Your task to perform on an android device: toggle pop-ups in chrome Image 0: 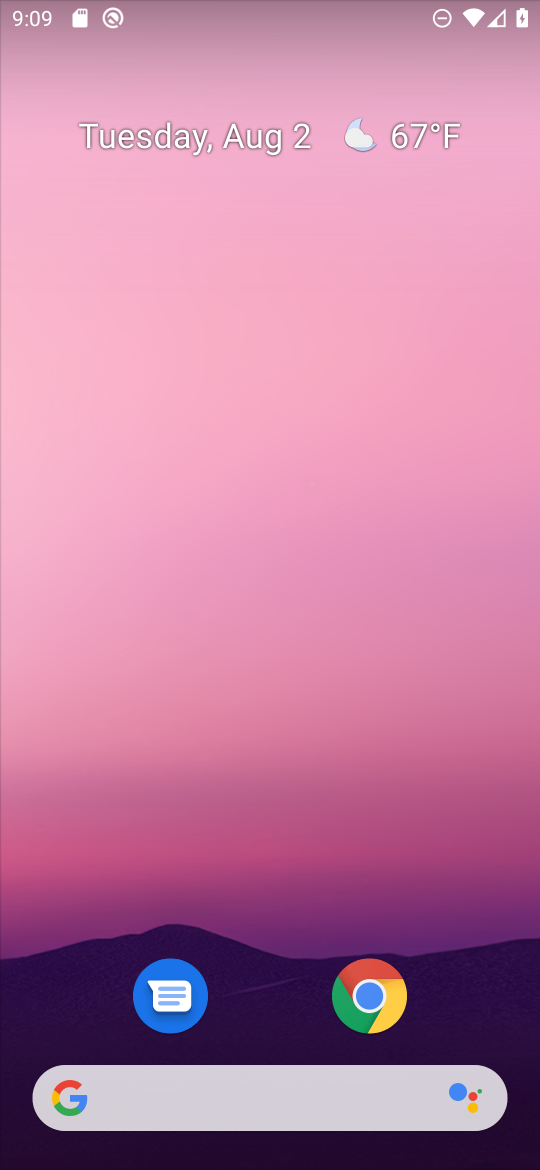
Step 0: drag from (298, 1002) to (272, 146)
Your task to perform on an android device: toggle pop-ups in chrome Image 1: 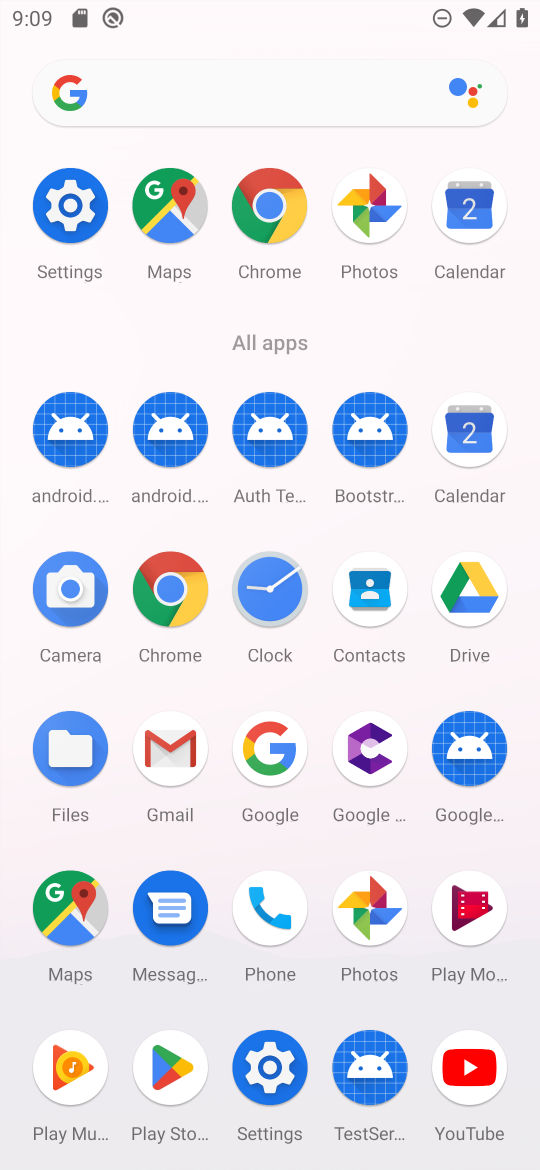
Step 1: click (174, 577)
Your task to perform on an android device: toggle pop-ups in chrome Image 2: 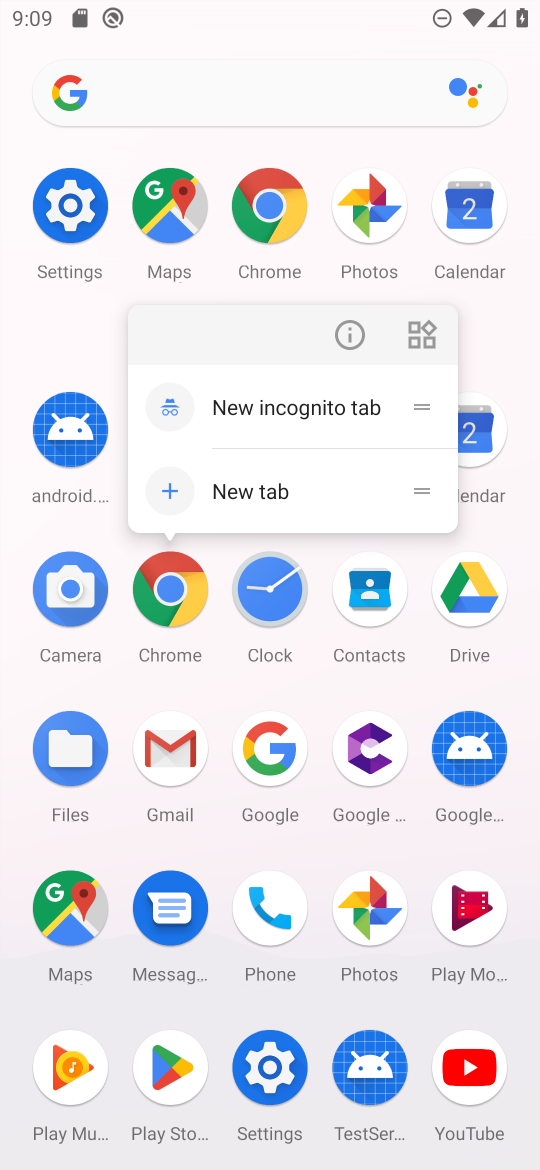
Step 2: click (174, 585)
Your task to perform on an android device: toggle pop-ups in chrome Image 3: 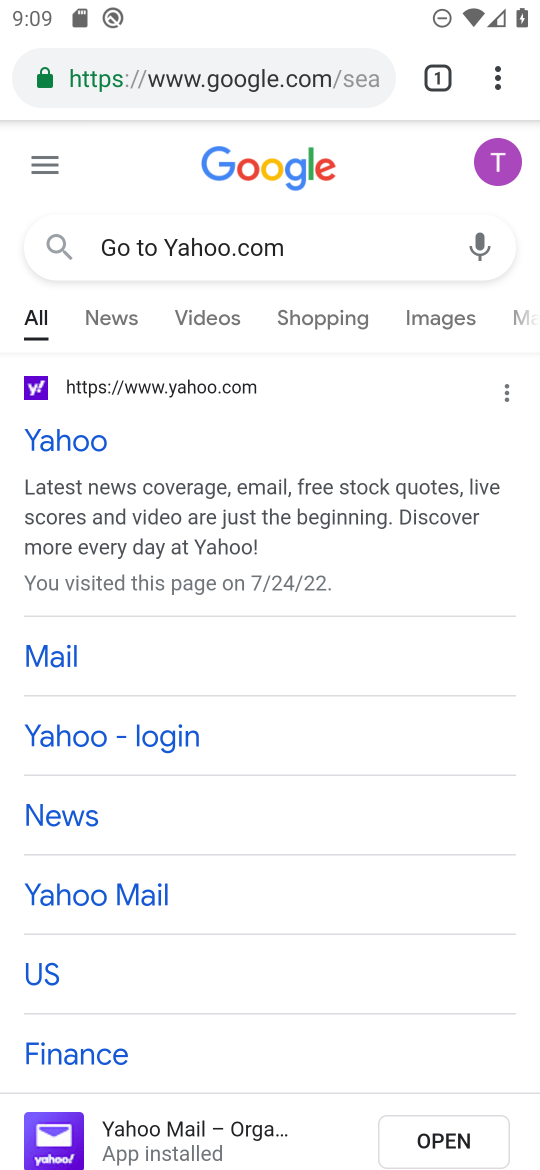
Step 3: drag from (497, 89) to (225, 955)
Your task to perform on an android device: toggle pop-ups in chrome Image 4: 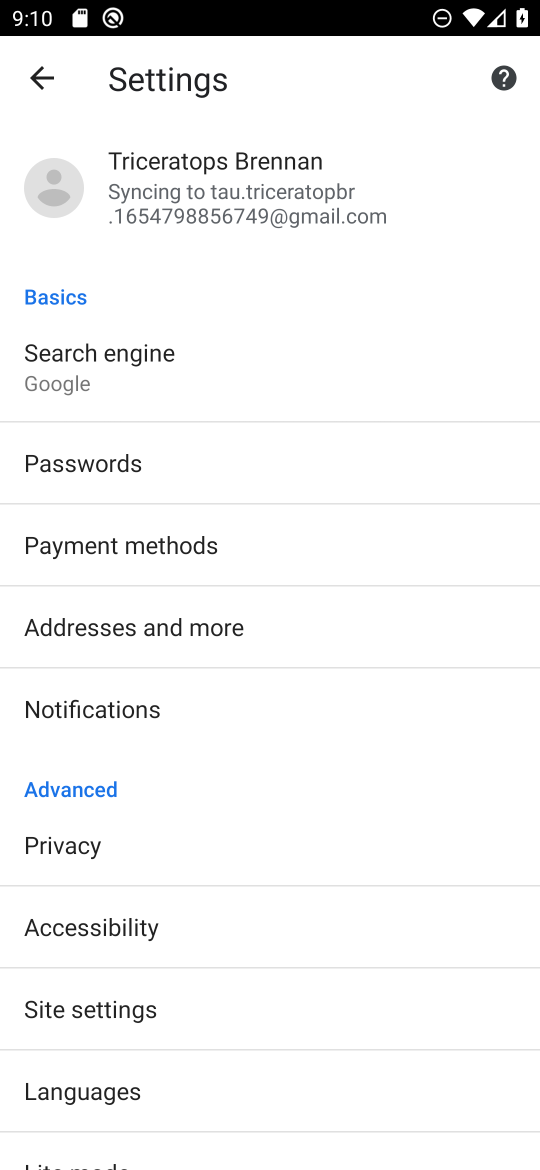
Step 4: click (129, 1016)
Your task to perform on an android device: toggle pop-ups in chrome Image 5: 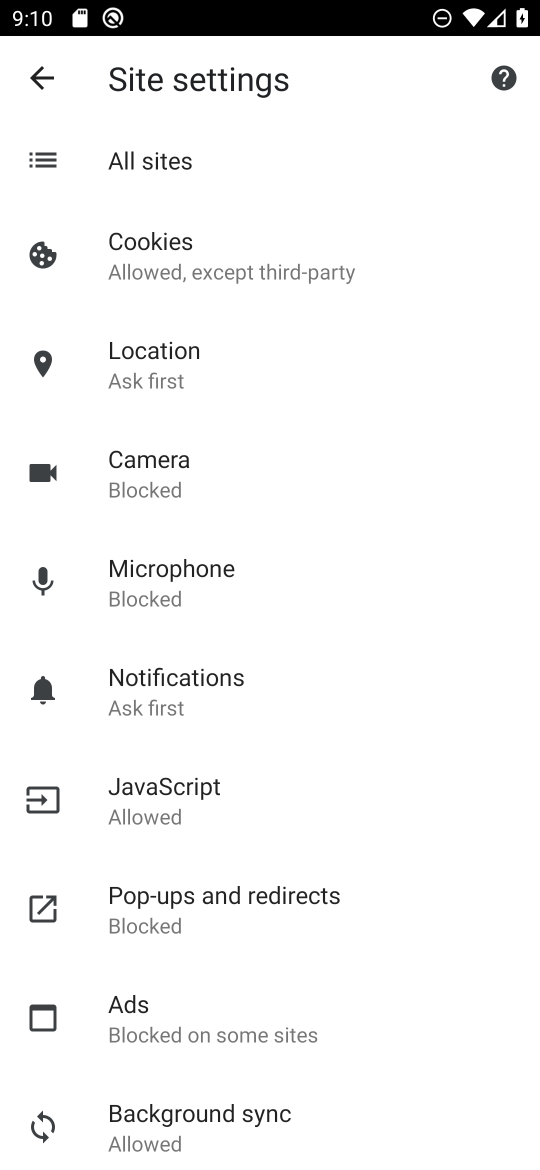
Step 5: click (173, 885)
Your task to perform on an android device: toggle pop-ups in chrome Image 6: 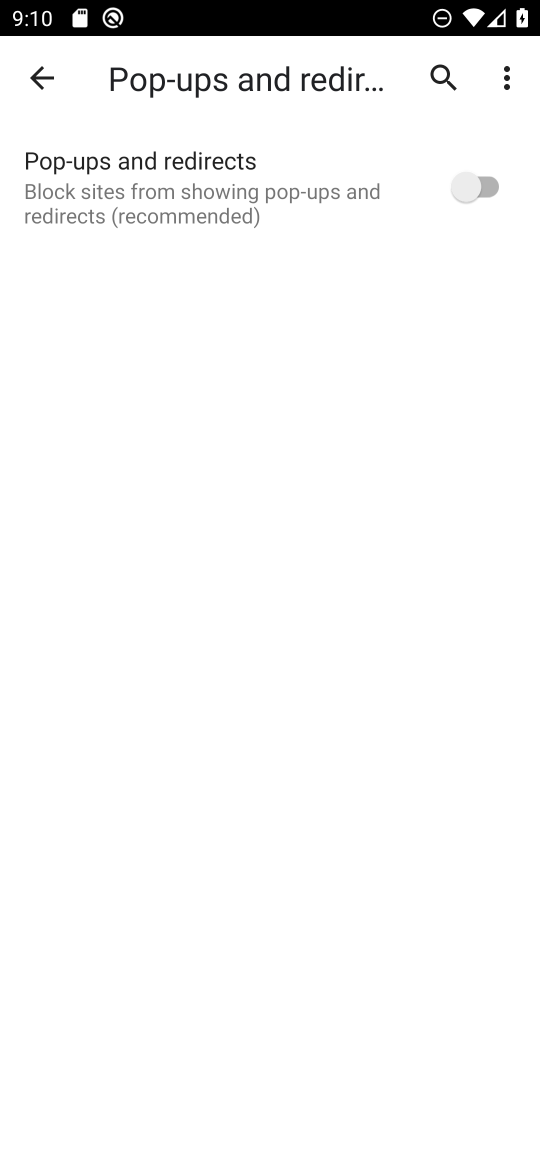
Step 6: click (388, 185)
Your task to perform on an android device: toggle pop-ups in chrome Image 7: 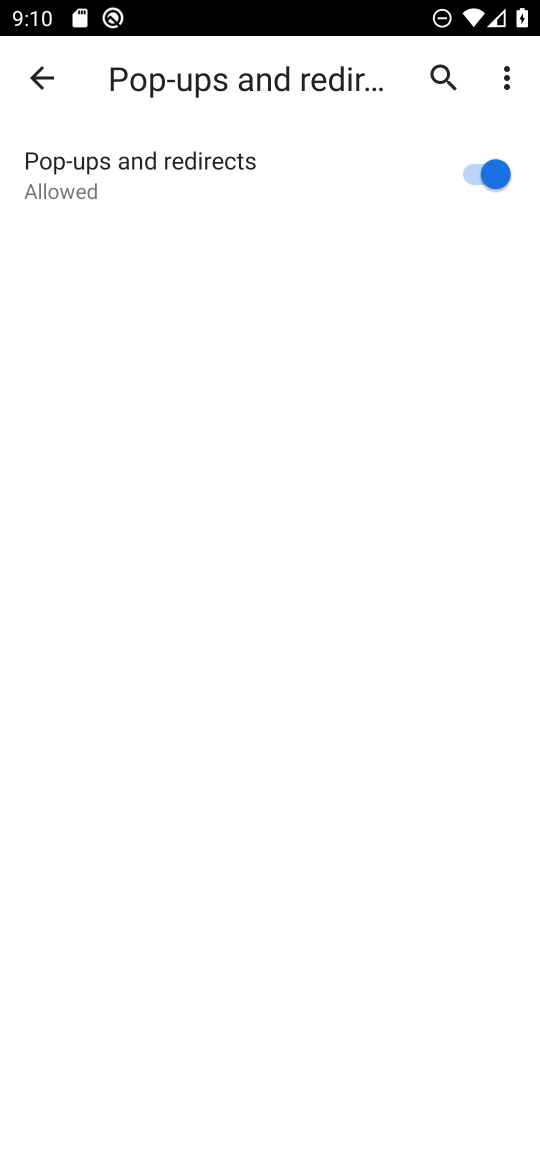
Step 7: task complete